Your task to perform on an android device: check the backup settings in the google photos Image 0: 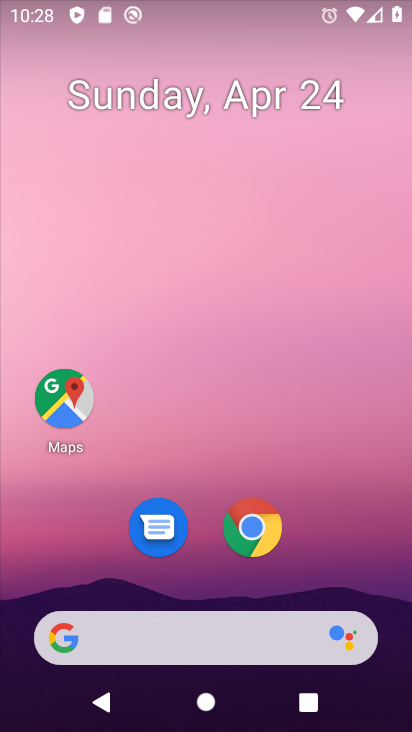
Step 0: drag from (209, 547) to (310, 67)
Your task to perform on an android device: check the backup settings in the google photos Image 1: 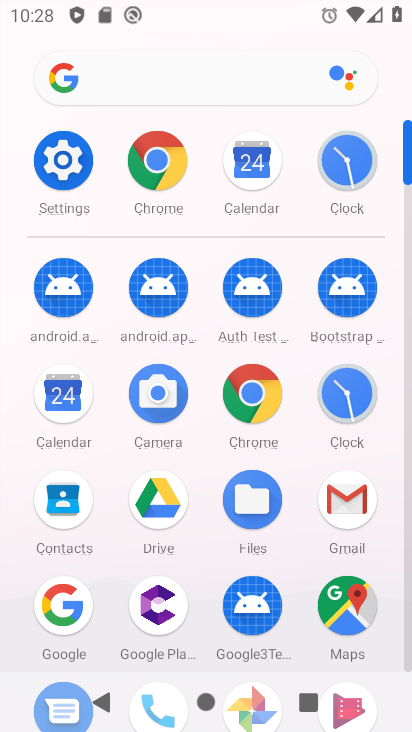
Step 1: drag from (235, 613) to (275, 198)
Your task to perform on an android device: check the backup settings in the google photos Image 2: 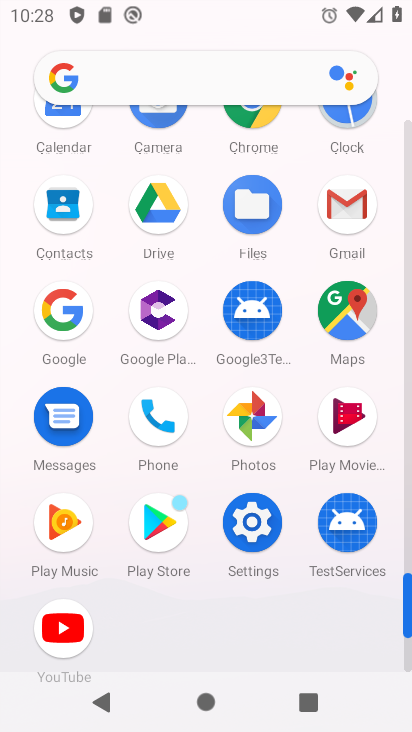
Step 2: click (258, 407)
Your task to perform on an android device: check the backup settings in the google photos Image 3: 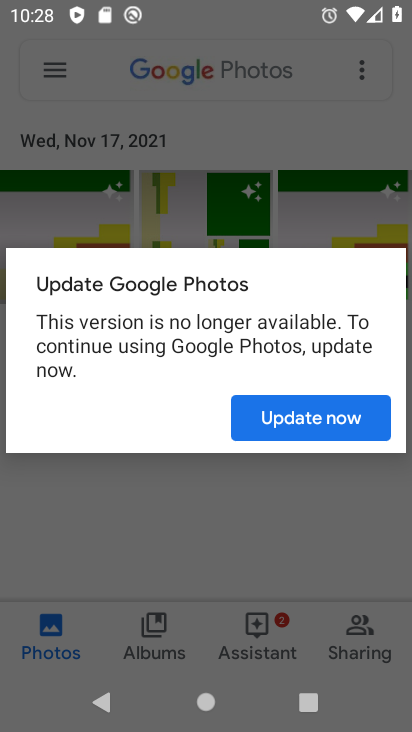
Step 3: click (292, 422)
Your task to perform on an android device: check the backup settings in the google photos Image 4: 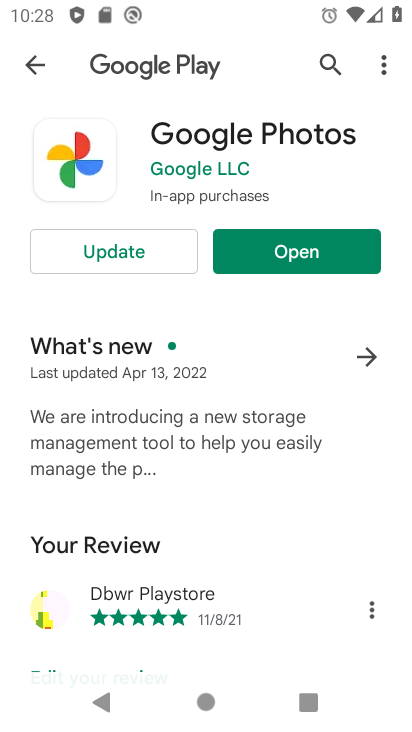
Step 4: click (297, 260)
Your task to perform on an android device: check the backup settings in the google photos Image 5: 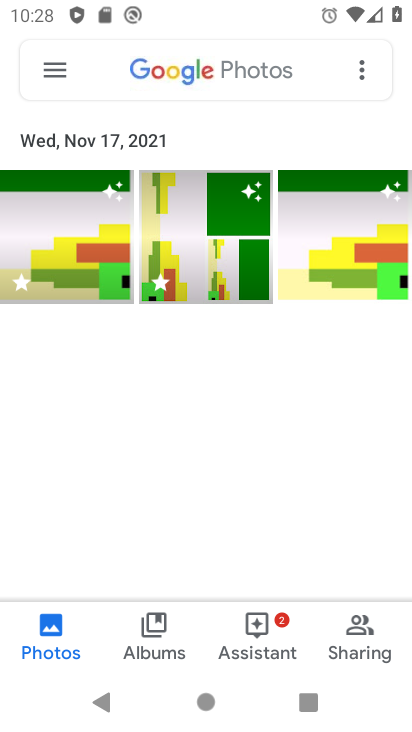
Step 5: click (50, 72)
Your task to perform on an android device: check the backup settings in the google photos Image 6: 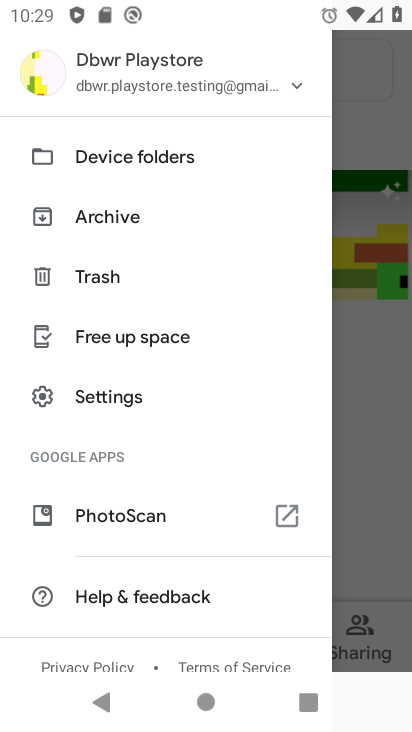
Step 6: click (102, 394)
Your task to perform on an android device: check the backup settings in the google photos Image 7: 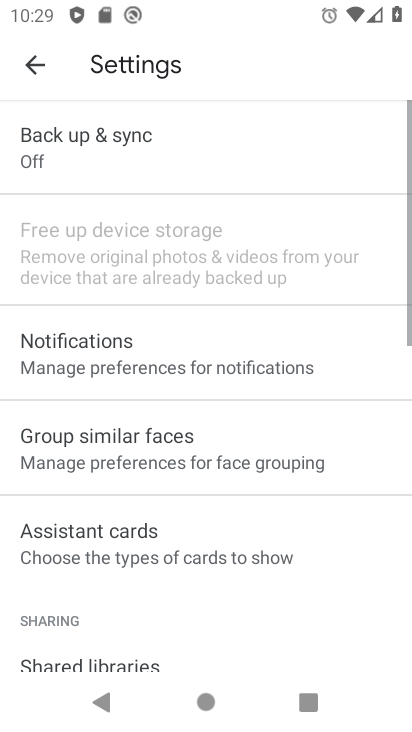
Step 7: click (104, 152)
Your task to perform on an android device: check the backup settings in the google photos Image 8: 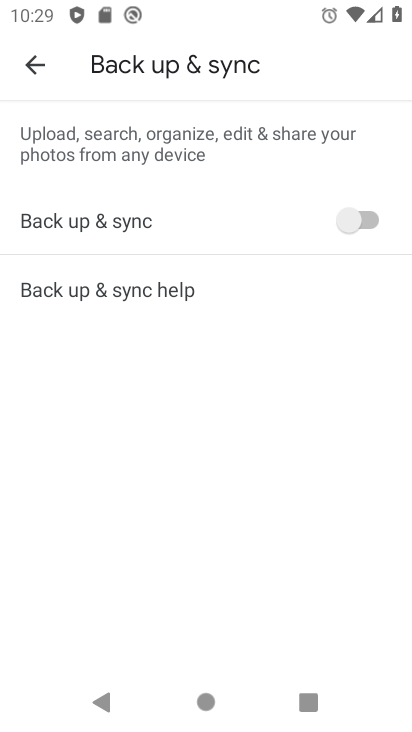
Step 8: task complete